Your task to perform on an android device: What's the weather like in Beijing? Image 0: 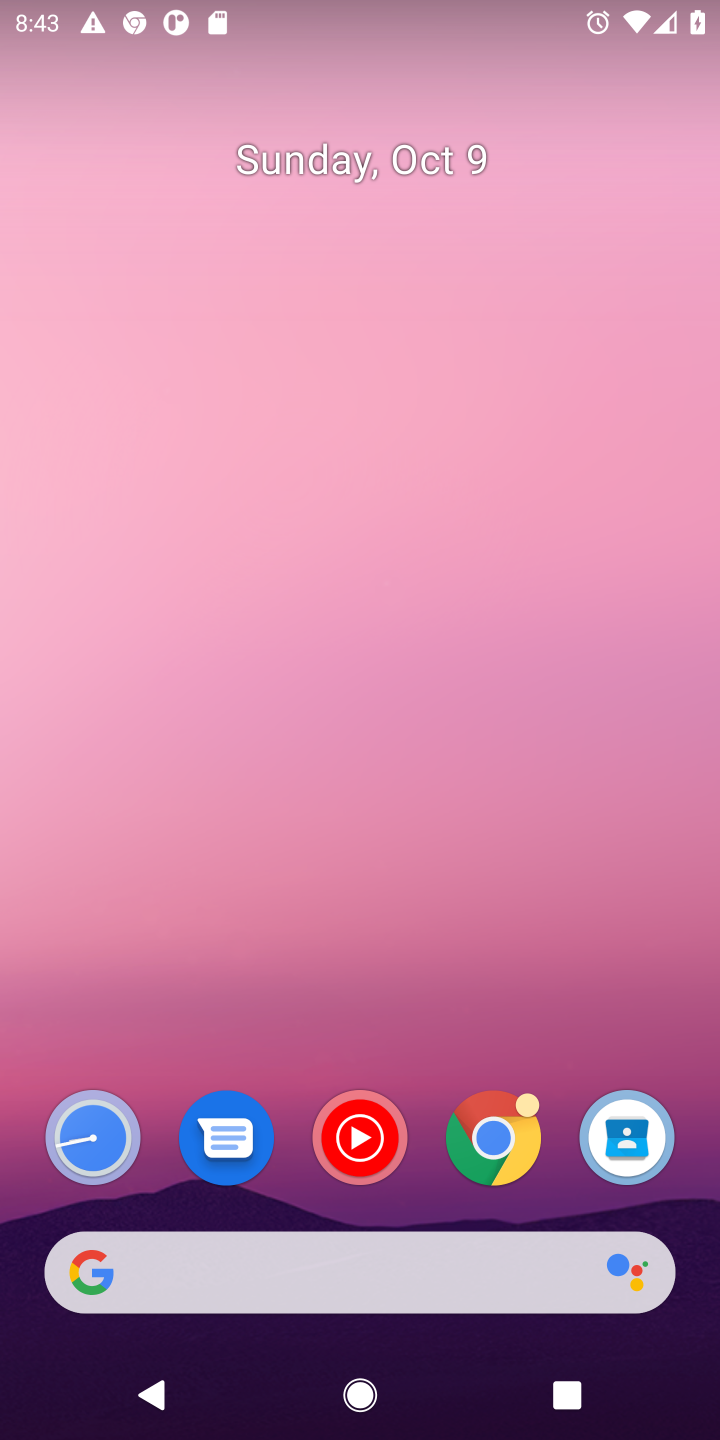
Step 0: drag from (398, 1154) to (410, 332)
Your task to perform on an android device: What's the weather like in Beijing? Image 1: 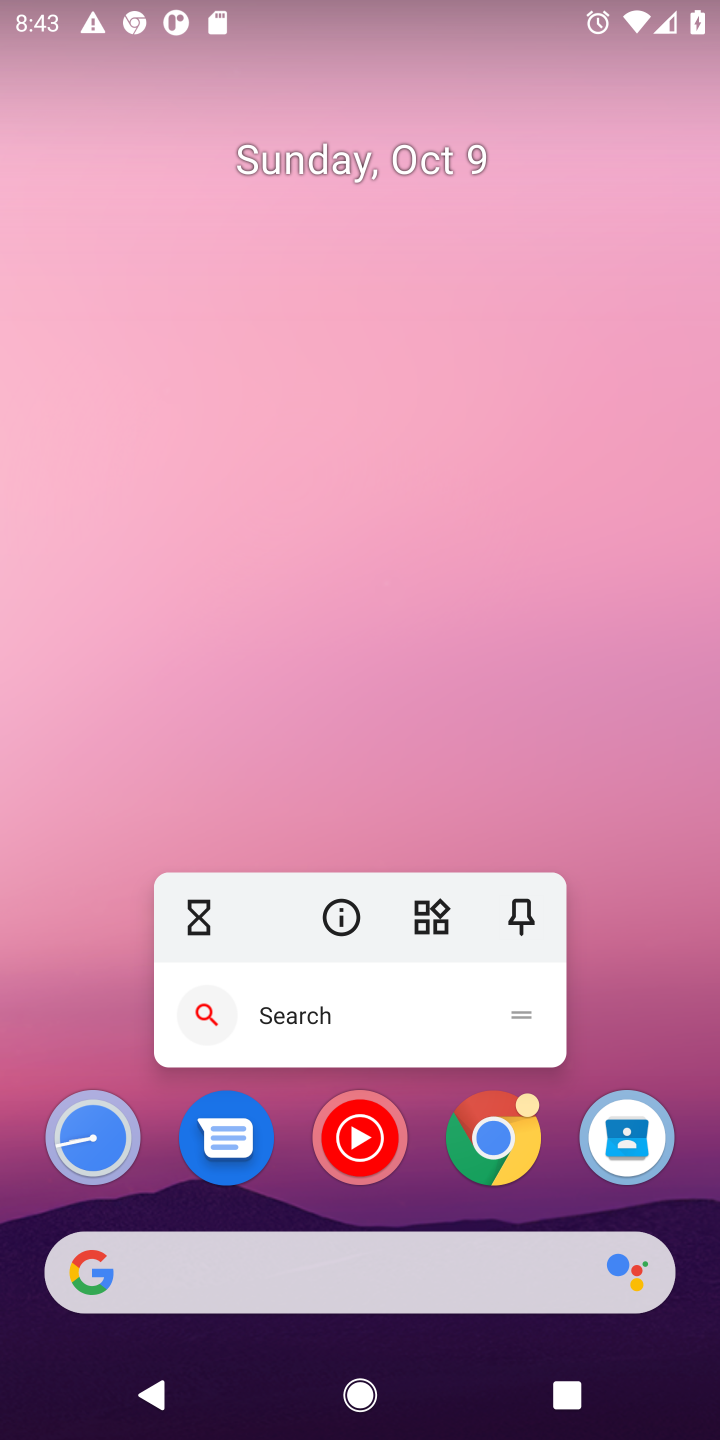
Step 1: click (295, 745)
Your task to perform on an android device: What's the weather like in Beijing? Image 2: 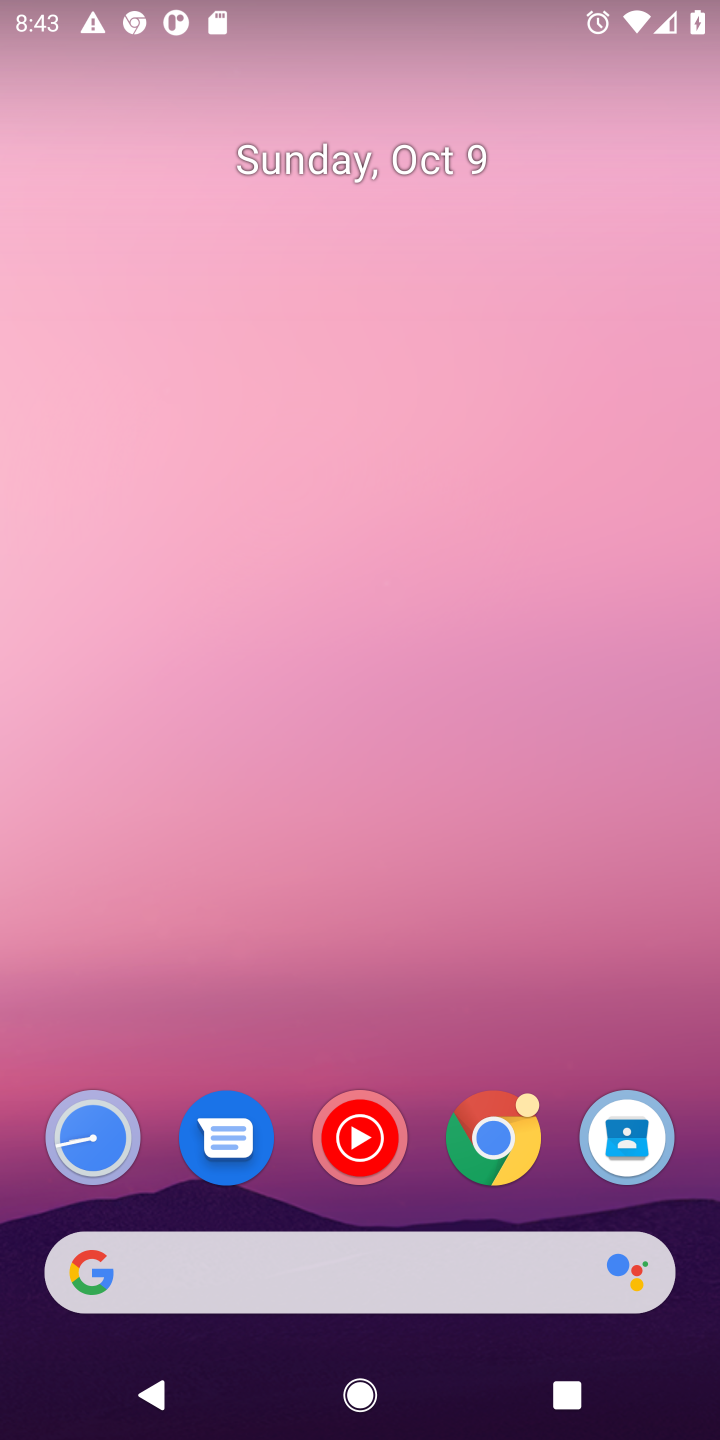
Step 2: drag from (351, 769) to (353, 544)
Your task to perform on an android device: What's the weather like in Beijing? Image 3: 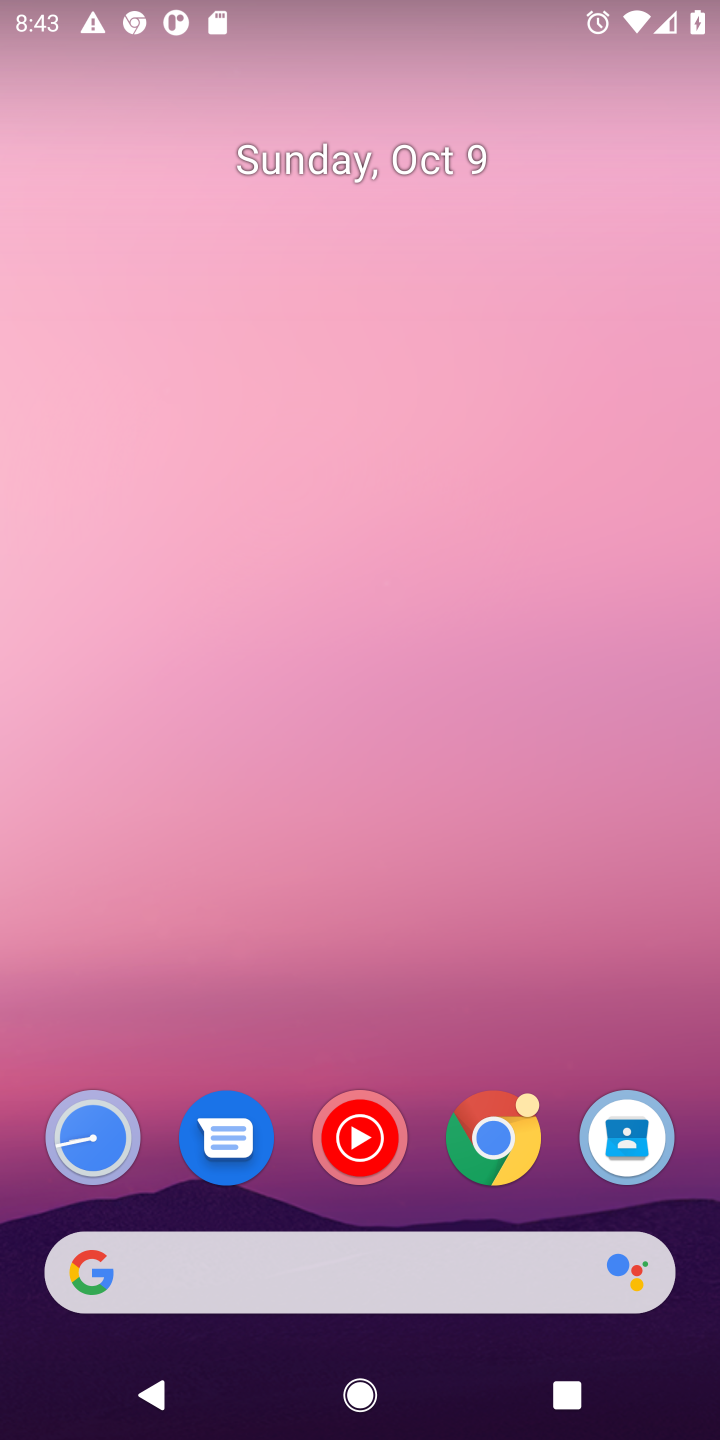
Step 3: drag from (300, 847) to (347, 217)
Your task to perform on an android device: What's the weather like in Beijing? Image 4: 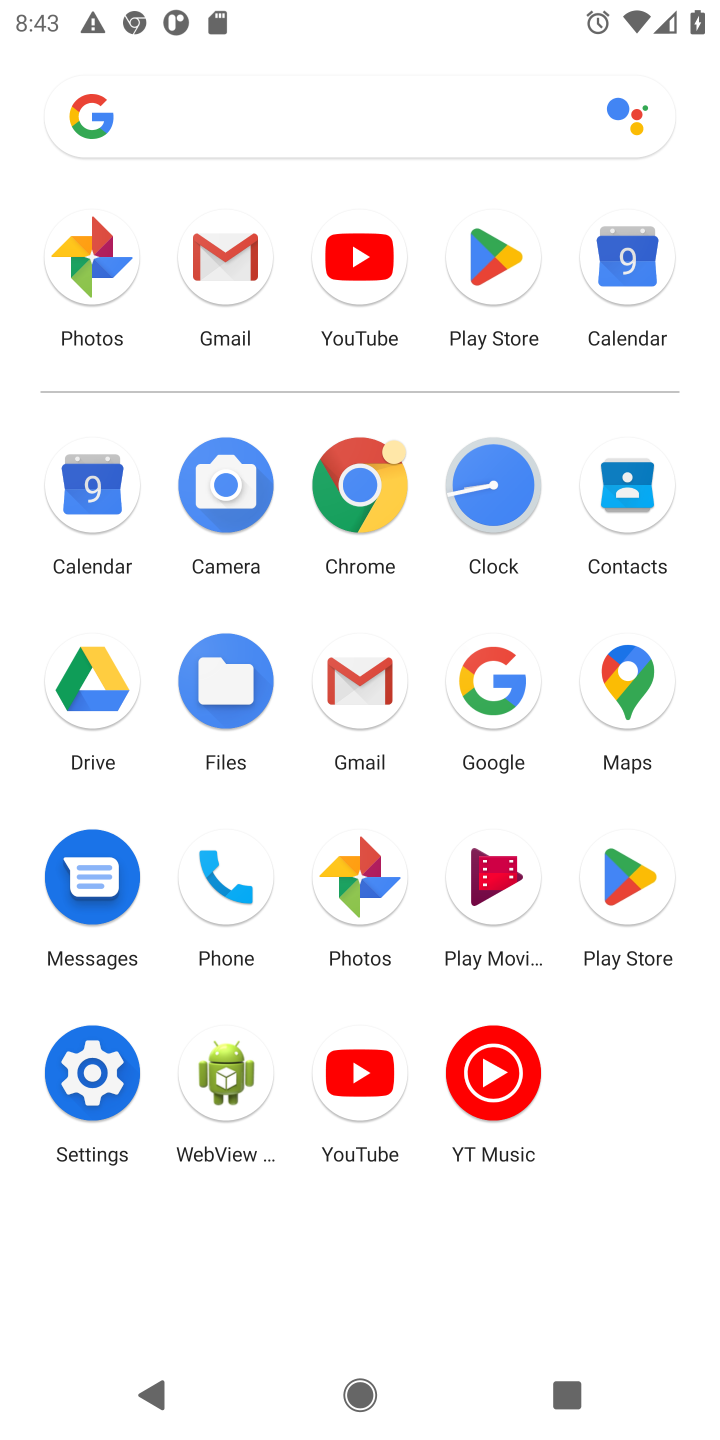
Step 4: click (465, 679)
Your task to perform on an android device: What's the weather like in Beijing? Image 5: 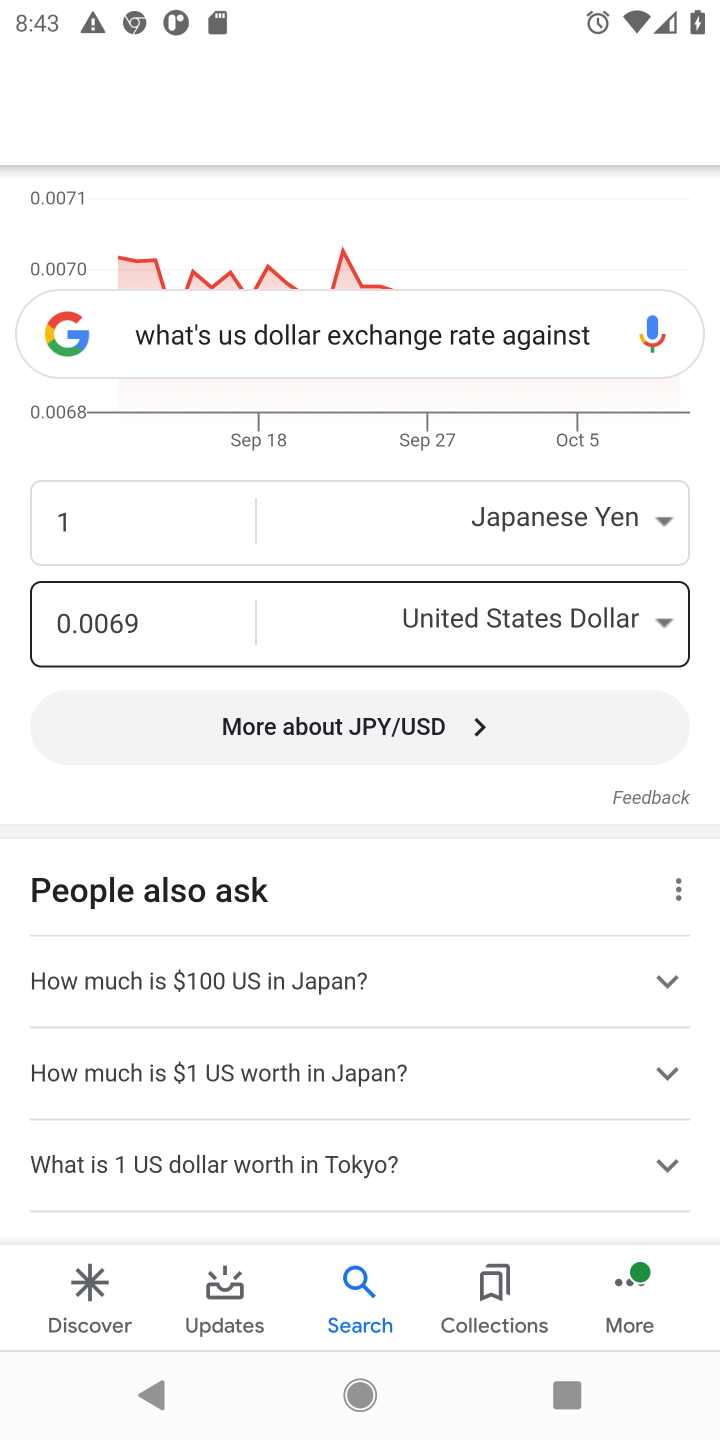
Step 5: click (509, 327)
Your task to perform on an android device: What's the weather like in Beijing? Image 6: 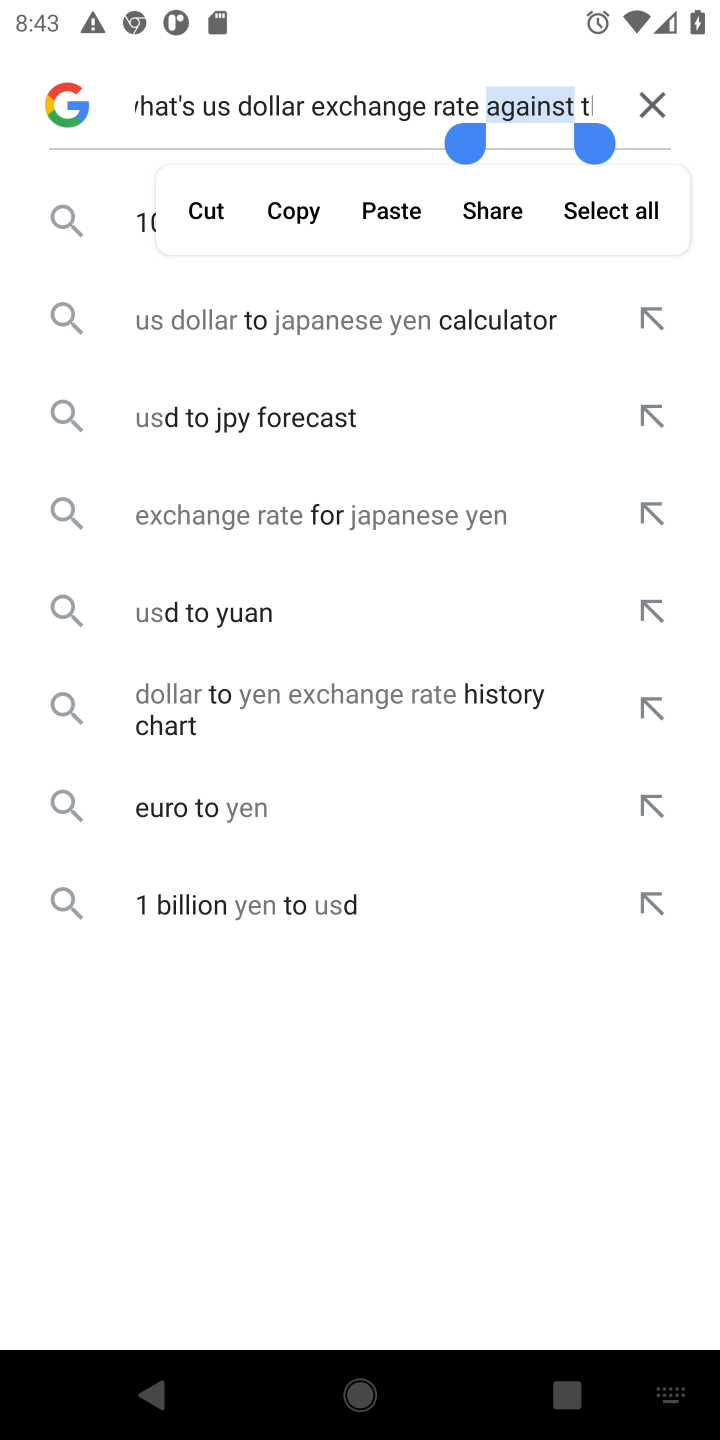
Step 6: click (657, 107)
Your task to perform on an android device: What's the weather like in Beijing? Image 7: 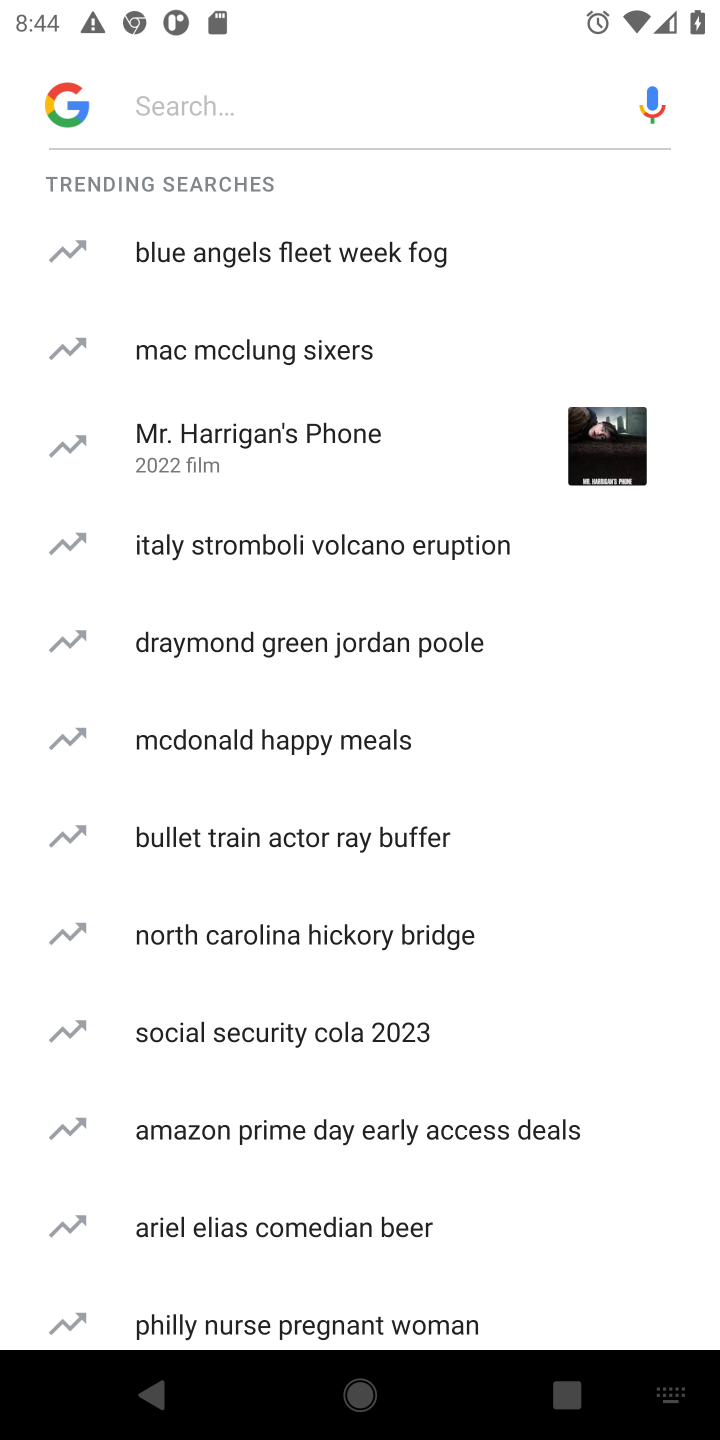
Step 7: click (277, 93)
Your task to perform on an android device: What's the weather like in Beijing? Image 8: 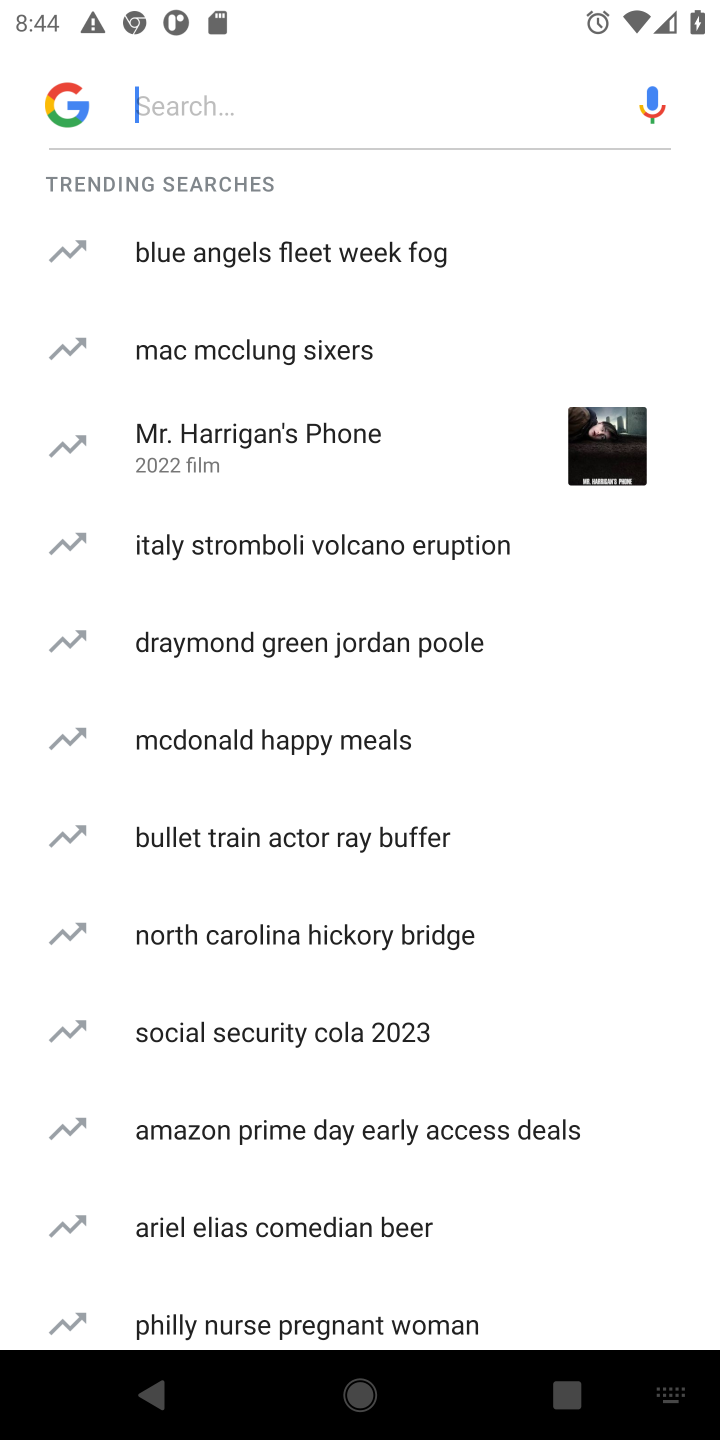
Step 8: type "What's the weather like in Beijing? "
Your task to perform on an android device: What's the weather like in Beijing? Image 9: 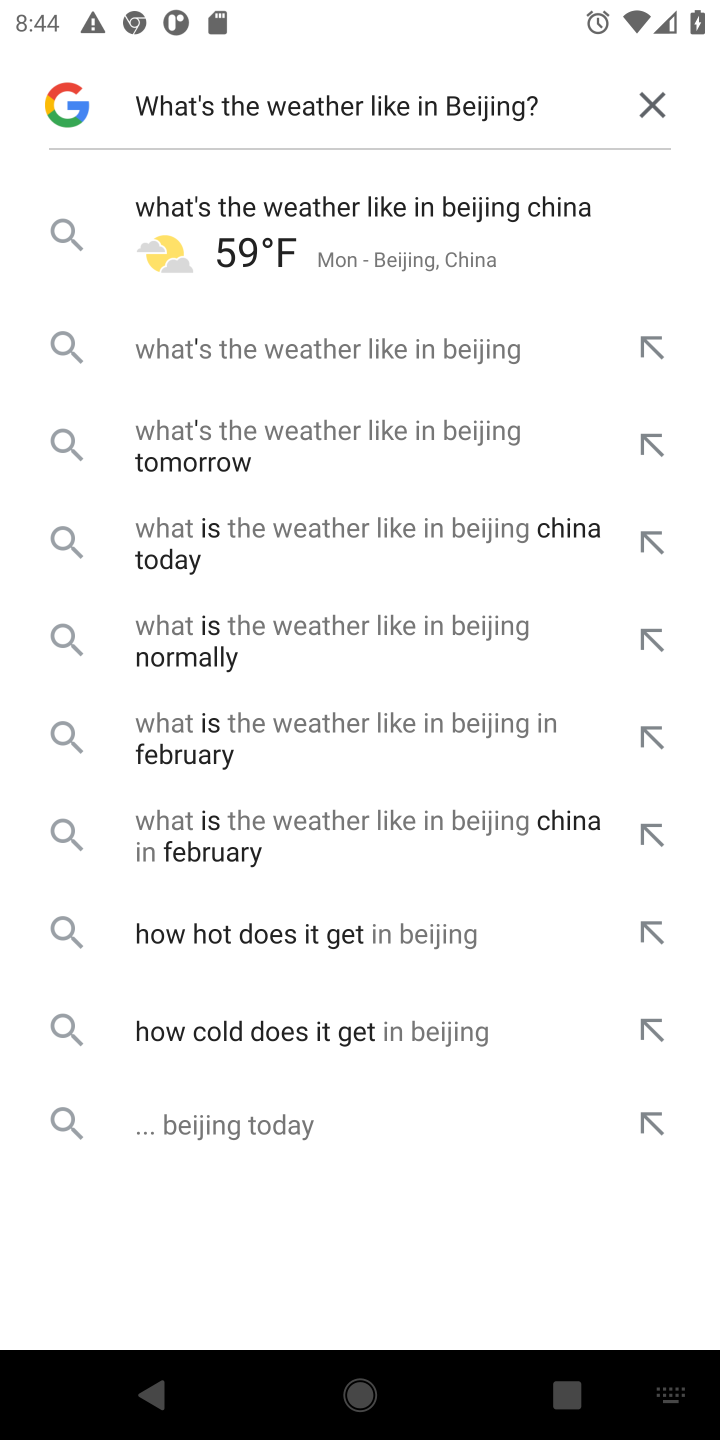
Step 9: click (356, 217)
Your task to perform on an android device: What's the weather like in Beijing? Image 10: 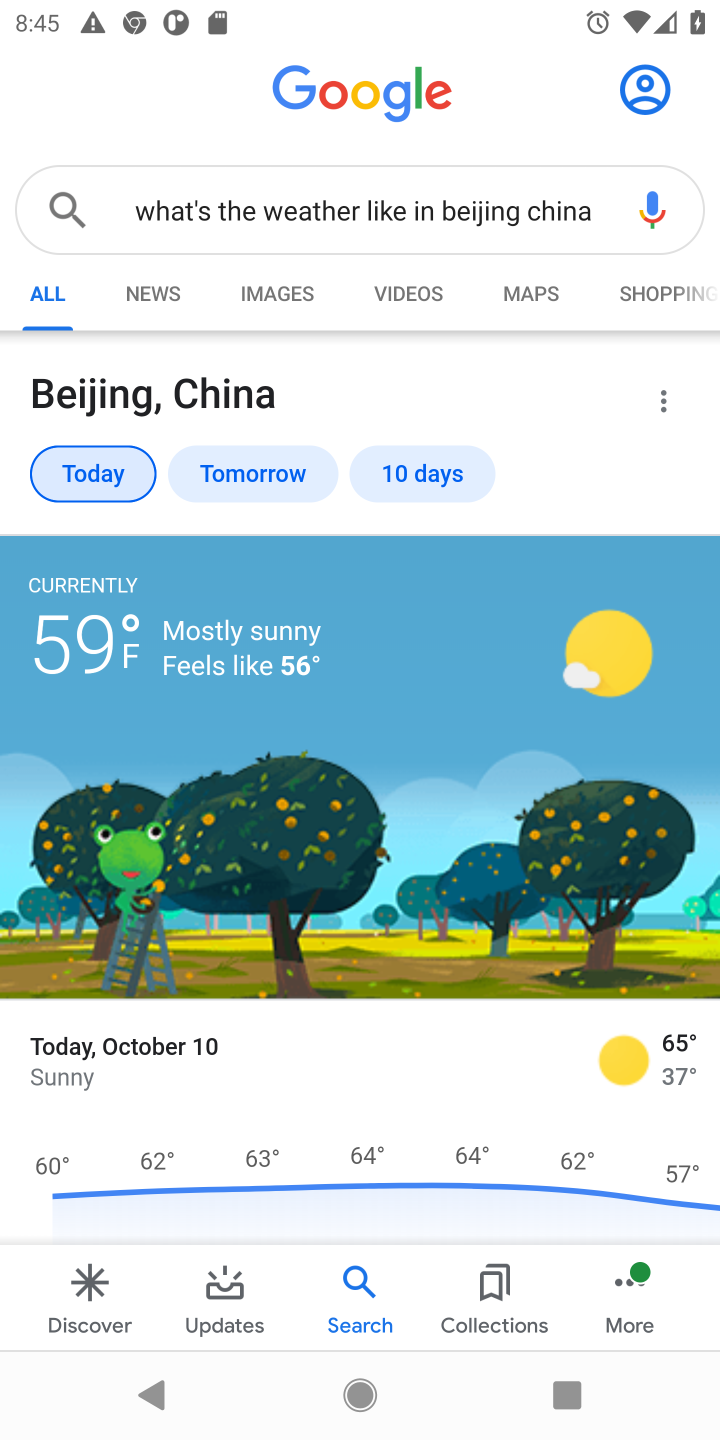
Step 10: task complete